Your task to perform on an android device: Clear all items from cart on walmart. Image 0: 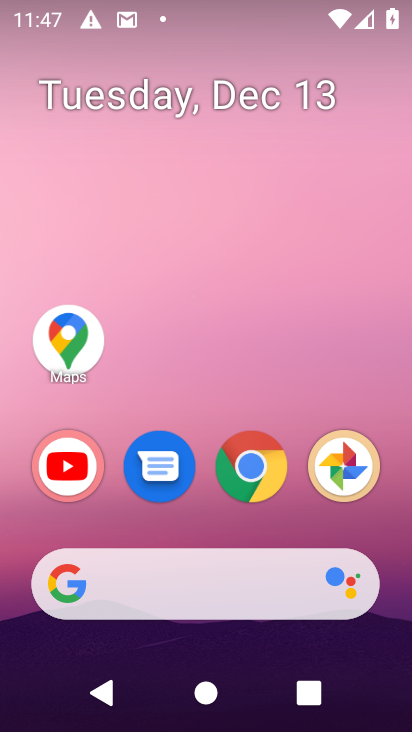
Step 0: click (141, 578)
Your task to perform on an android device: Clear all items from cart on walmart. Image 1: 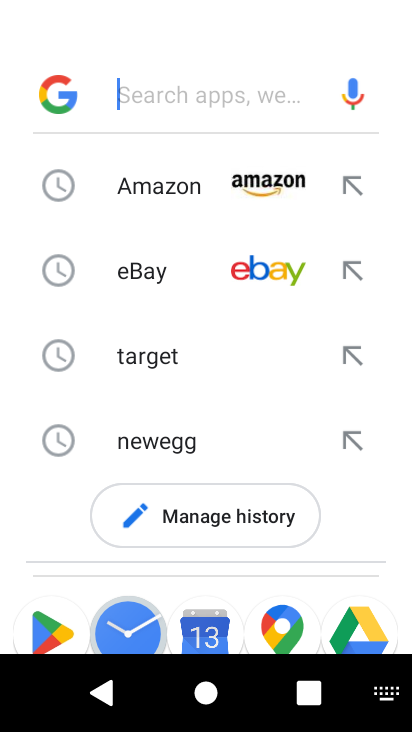
Step 1: type "walmart"
Your task to perform on an android device: Clear all items from cart on walmart. Image 2: 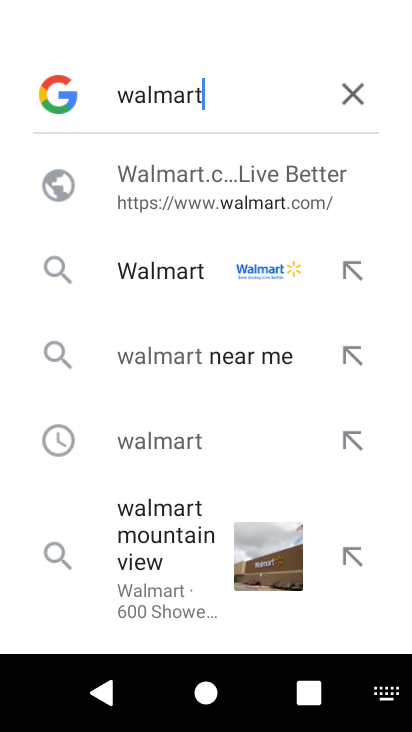
Step 2: click (181, 257)
Your task to perform on an android device: Clear all items from cart on walmart. Image 3: 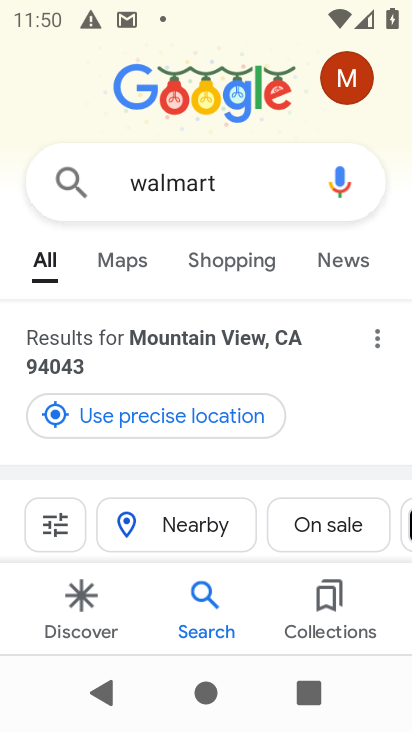
Step 3: drag from (257, 461) to (239, 166)
Your task to perform on an android device: Clear all items from cart on walmart. Image 4: 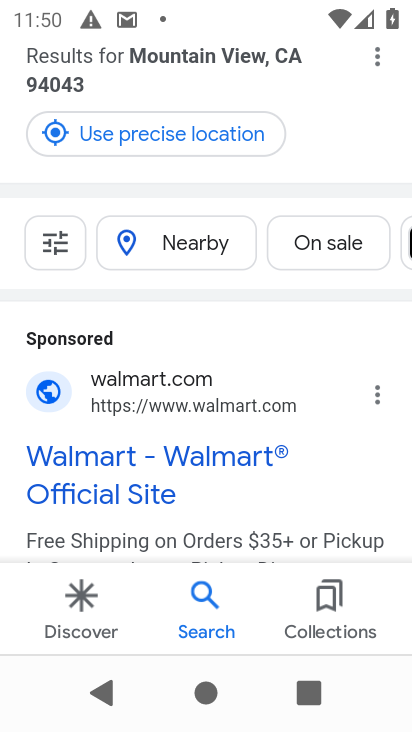
Step 4: drag from (177, 342) to (175, 182)
Your task to perform on an android device: Clear all items from cart on walmart. Image 5: 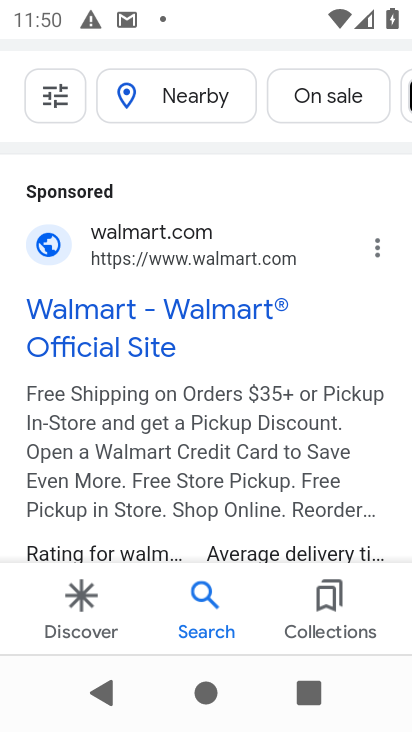
Step 5: drag from (263, 484) to (258, 303)
Your task to perform on an android device: Clear all items from cart on walmart. Image 6: 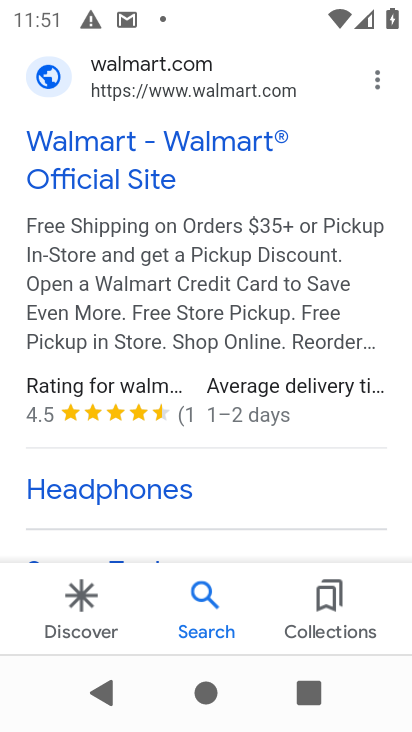
Step 6: drag from (166, 486) to (160, 310)
Your task to perform on an android device: Clear all items from cart on walmart. Image 7: 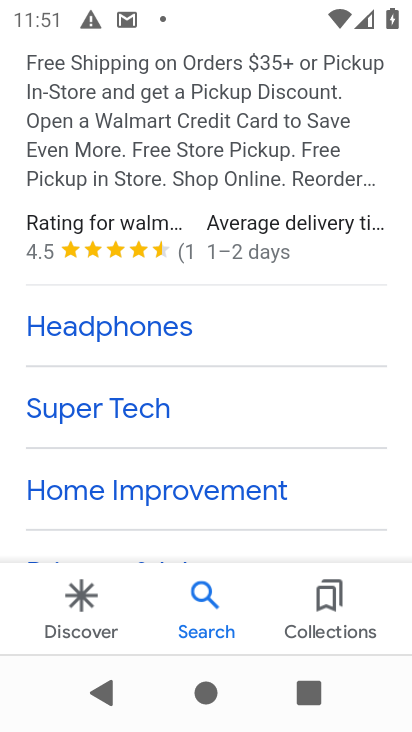
Step 7: drag from (234, 360) to (266, 175)
Your task to perform on an android device: Clear all items from cart on walmart. Image 8: 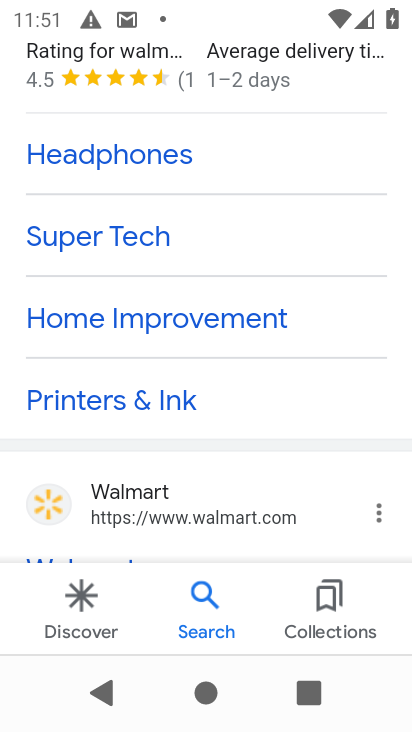
Step 8: click (105, 507)
Your task to perform on an android device: Clear all items from cart on walmart. Image 9: 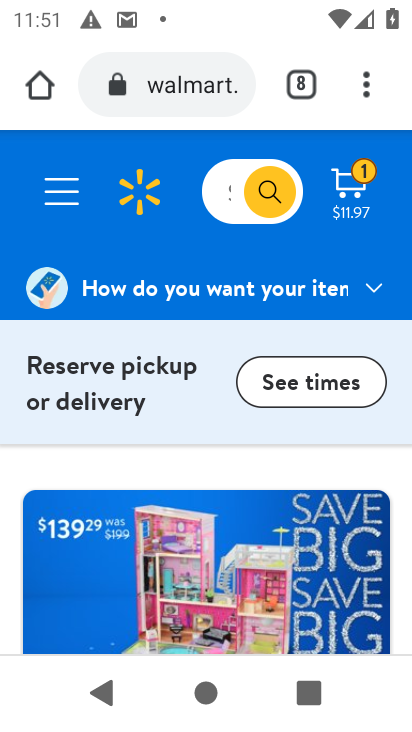
Step 9: drag from (178, 465) to (235, 265)
Your task to perform on an android device: Clear all items from cart on walmart. Image 10: 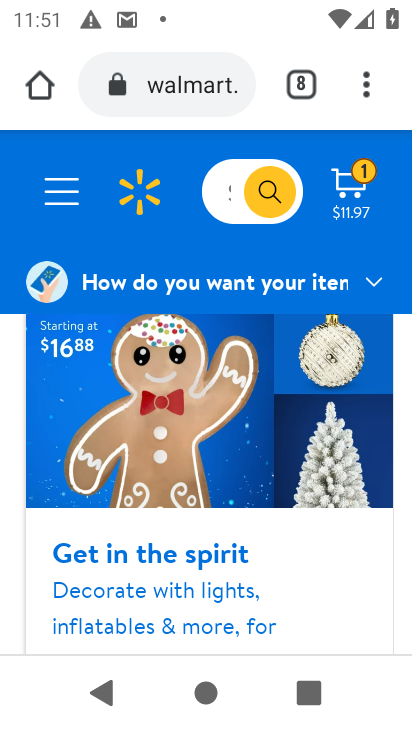
Step 10: click (358, 199)
Your task to perform on an android device: Clear all items from cart on walmart. Image 11: 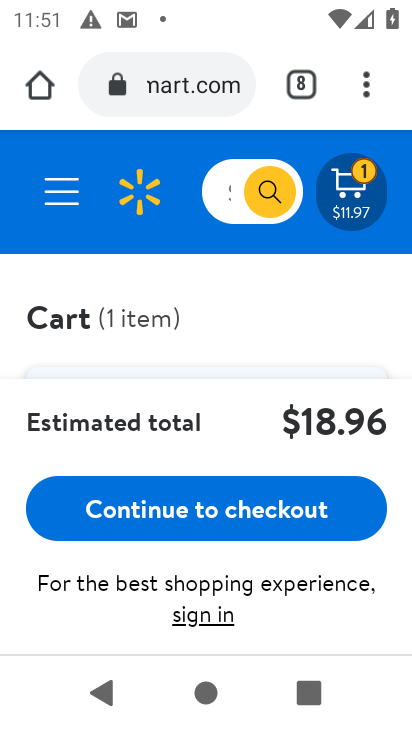
Step 11: drag from (219, 363) to (211, 186)
Your task to perform on an android device: Clear all items from cart on walmart. Image 12: 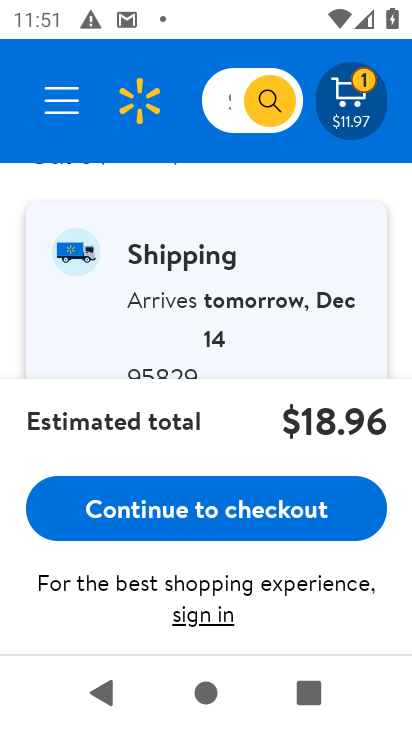
Step 12: click (342, 93)
Your task to perform on an android device: Clear all items from cart on walmart. Image 13: 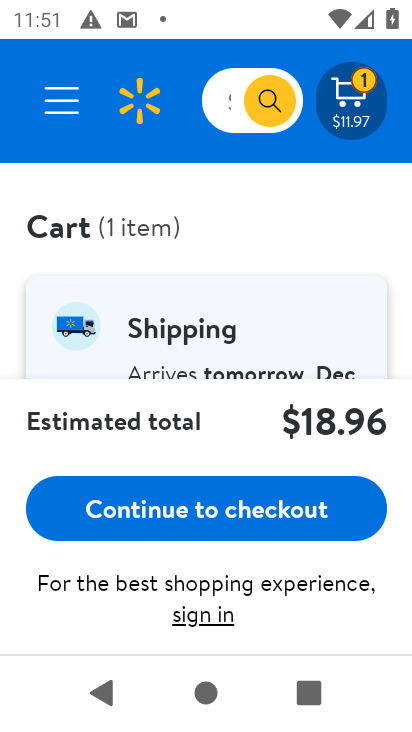
Step 13: click (342, 93)
Your task to perform on an android device: Clear all items from cart on walmart. Image 14: 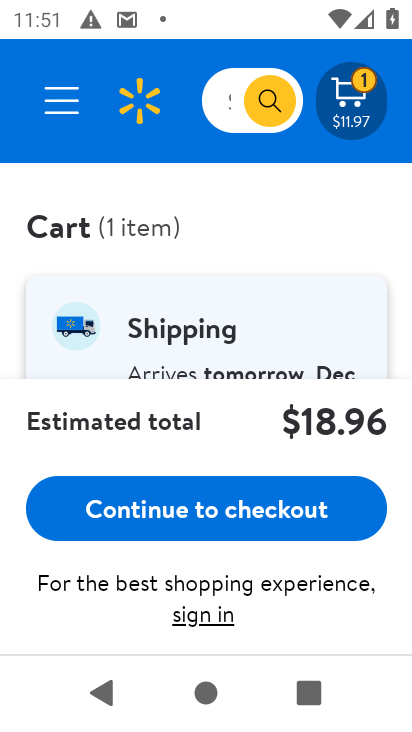
Step 14: drag from (273, 364) to (265, 113)
Your task to perform on an android device: Clear all items from cart on walmart. Image 15: 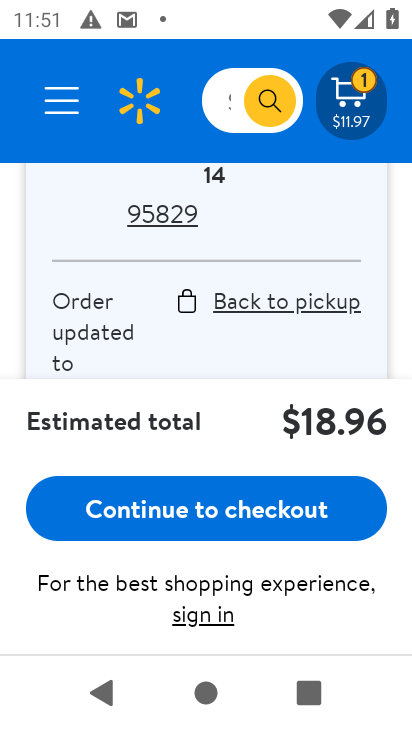
Step 15: drag from (225, 329) to (226, 162)
Your task to perform on an android device: Clear all items from cart on walmart. Image 16: 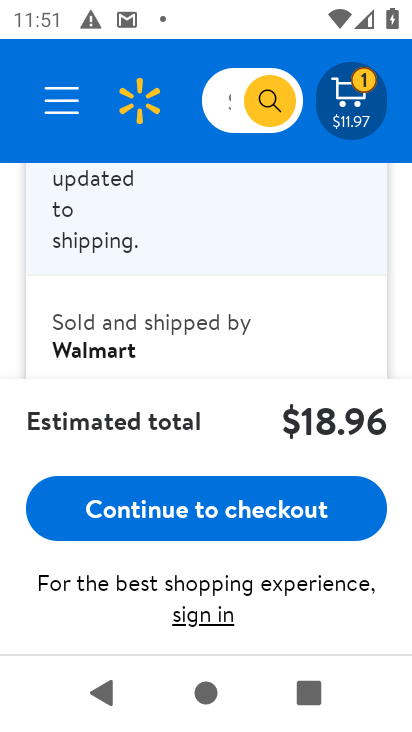
Step 16: drag from (268, 326) to (225, 198)
Your task to perform on an android device: Clear all items from cart on walmart. Image 17: 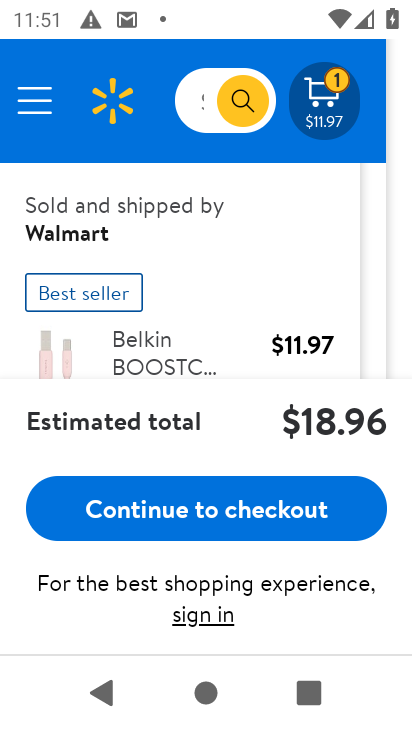
Step 17: drag from (194, 299) to (179, 253)
Your task to perform on an android device: Clear all items from cart on walmart. Image 18: 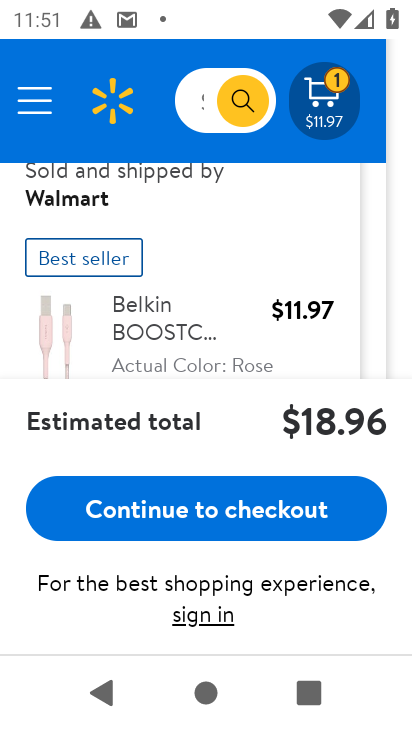
Step 18: drag from (241, 355) to (213, 243)
Your task to perform on an android device: Clear all items from cart on walmart. Image 19: 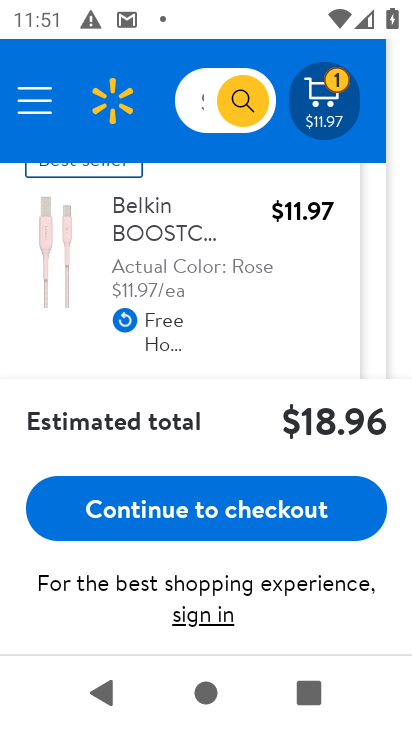
Step 19: drag from (201, 319) to (188, 204)
Your task to perform on an android device: Clear all items from cart on walmart. Image 20: 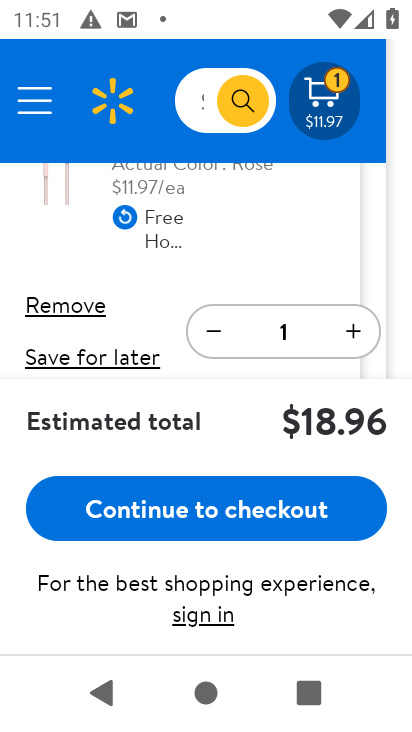
Step 20: click (80, 312)
Your task to perform on an android device: Clear all items from cart on walmart. Image 21: 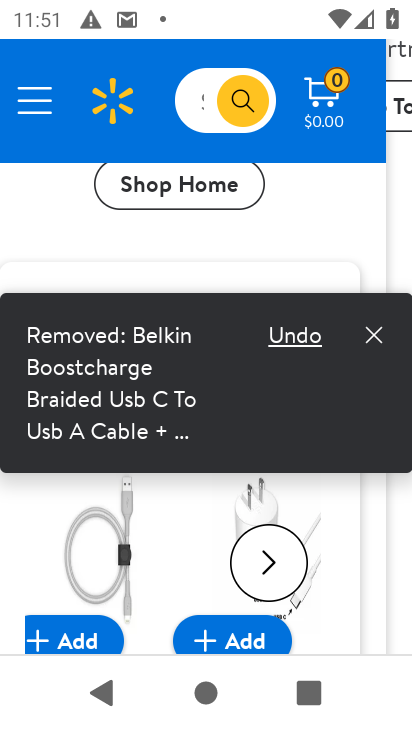
Step 21: click (370, 326)
Your task to perform on an android device: Clear all items from cart on walmart. Image 22: 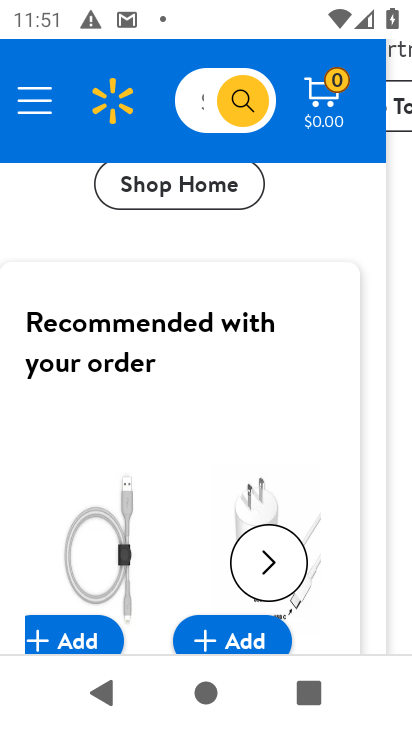
Step 22: task complete